Your task to perform on an android device: Add "sony triple a" to the cart on bestbuy.com Image 0: 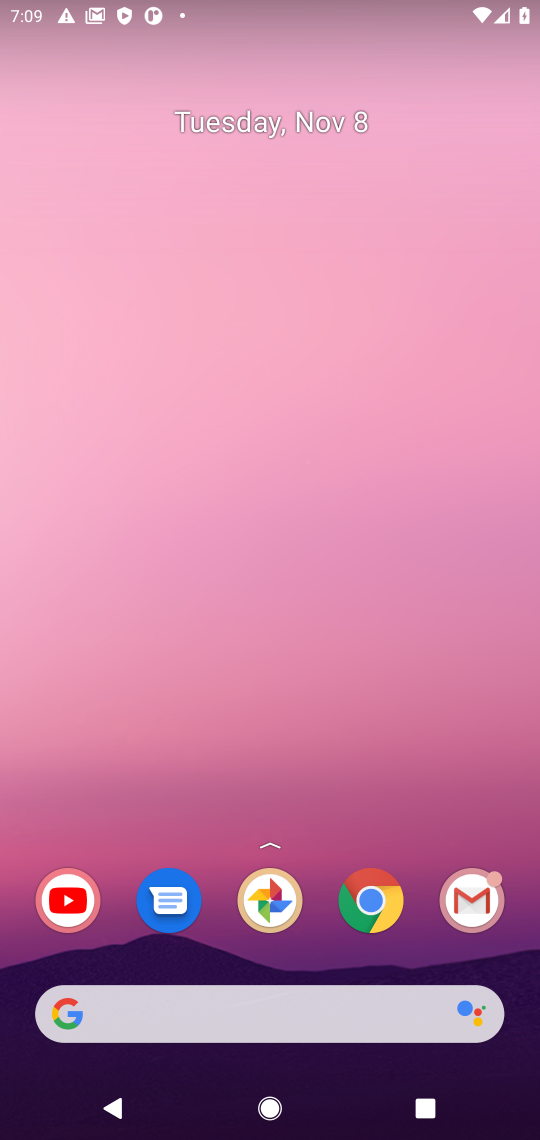
Step 0: click (383, 910)
Your task to perform on an android device: Add "sony triple a" to the cart on bestbuy.com Image 1: 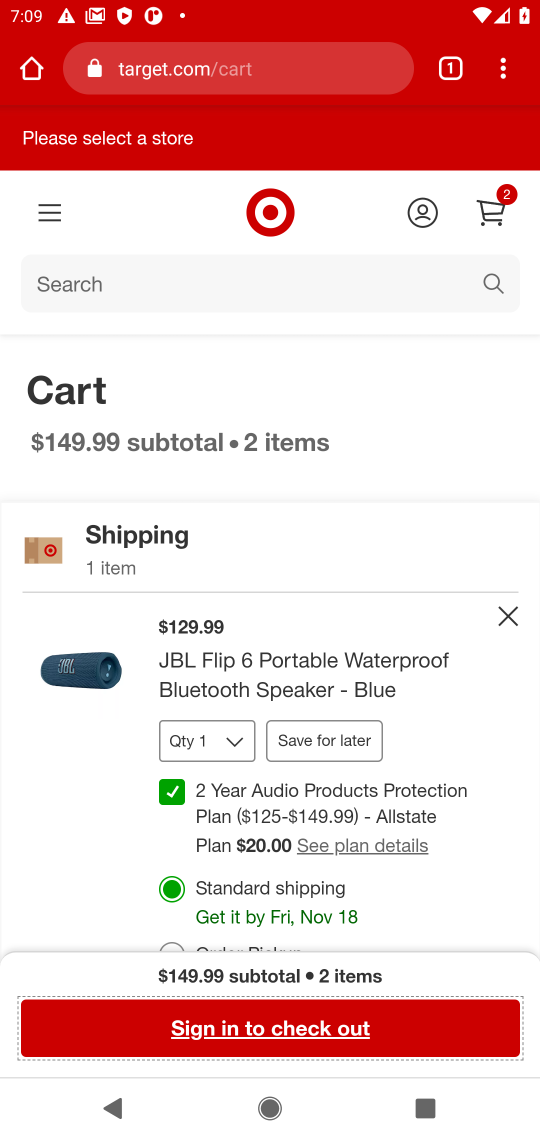
Step 1: click (180, 77)
Your task to perform on an android device: Add "sony triple a" to the cart on bestbuy.com Image 2: 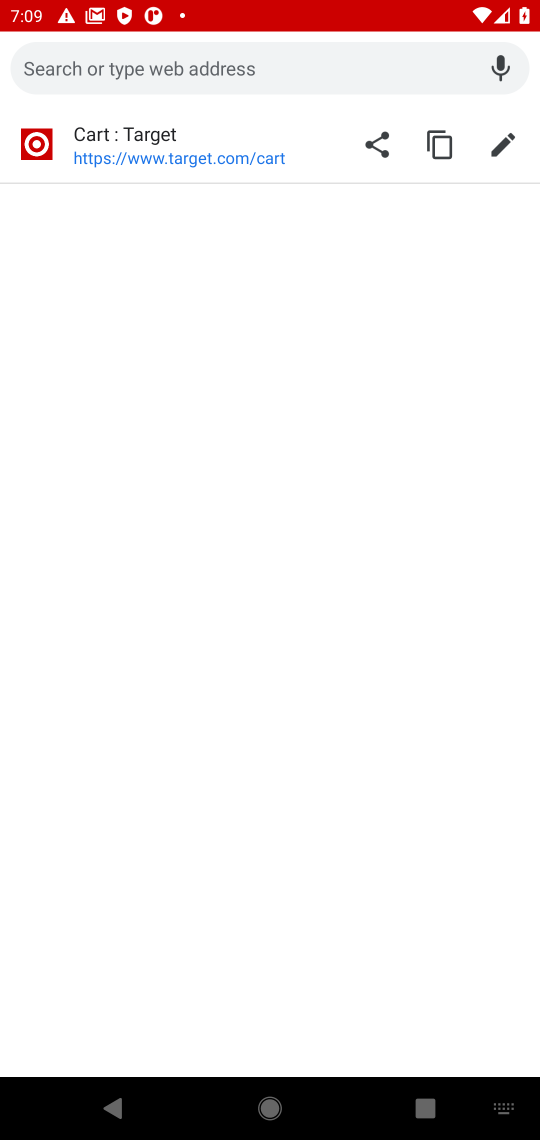
Step 2: type "bestbuy"
Your task to perform on an android device: Add "sony triple a" to the cart on bestbuy.com Image 3: 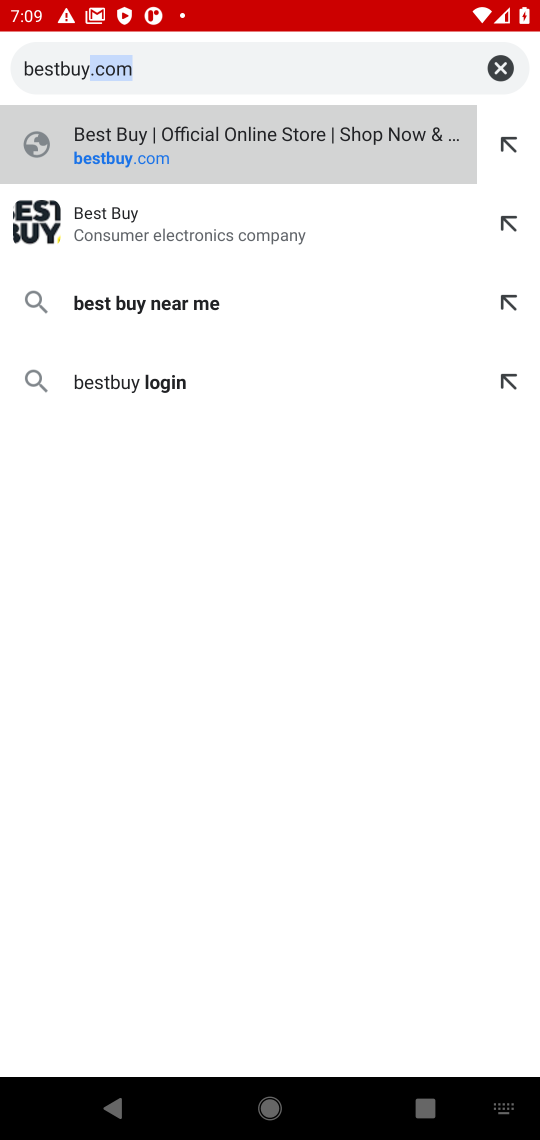
Step 3: type ""
Your task to perform on an android device: Add "sony triple a" to the cart on bestbuy.com Image 4: 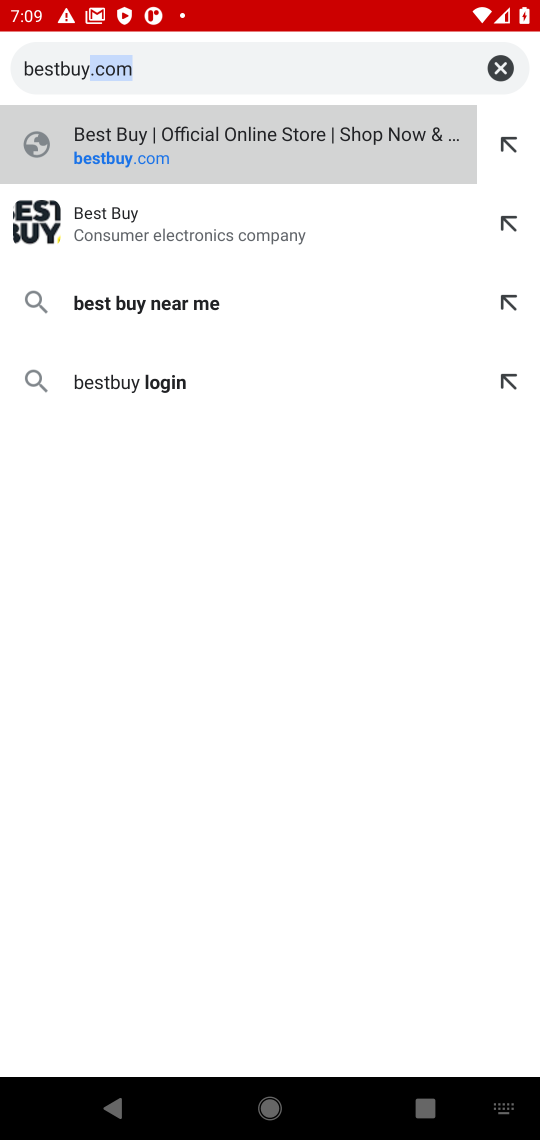
Step 4: click (103, 223)
Your task to perform on an android device: Add "sony triple a" to the cart on bestbuy.com Image 5: 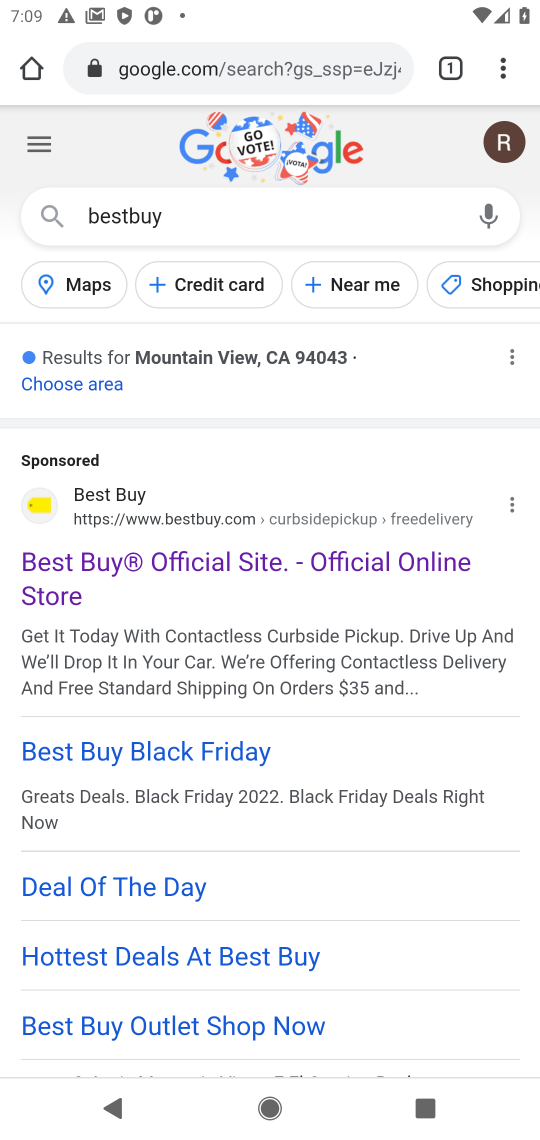
Step 5: drag from (251, 981) to (211, 308)
Your task to perform on an android device: Add "sony triple a" to the cart on bestbuy.com Image 6: 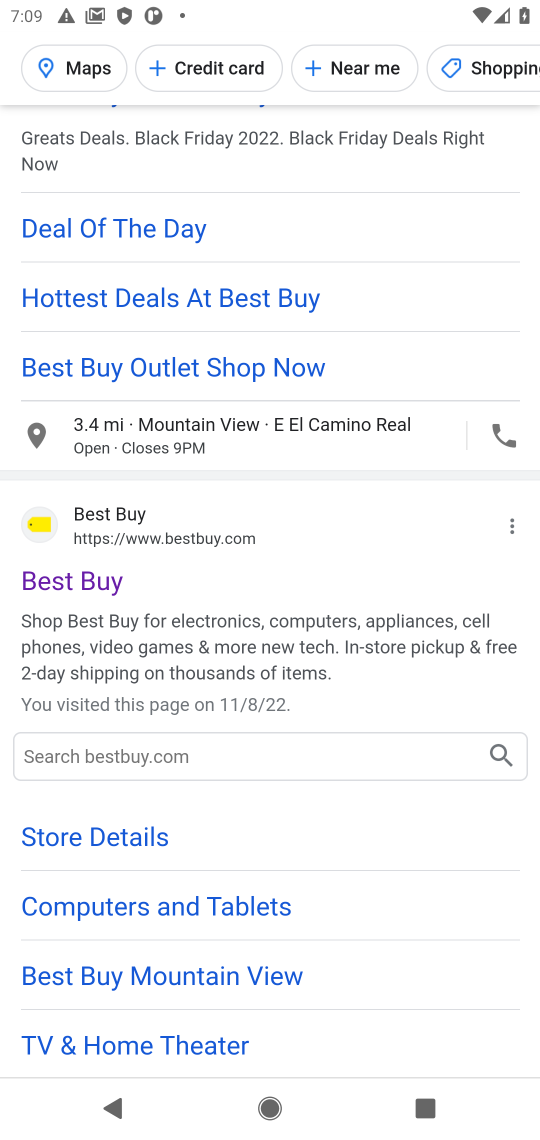
Step 6: click (97, 577)
Your task to perform on an android device: Add "sony triple a" to the cart on bestbuy.com Image 7: 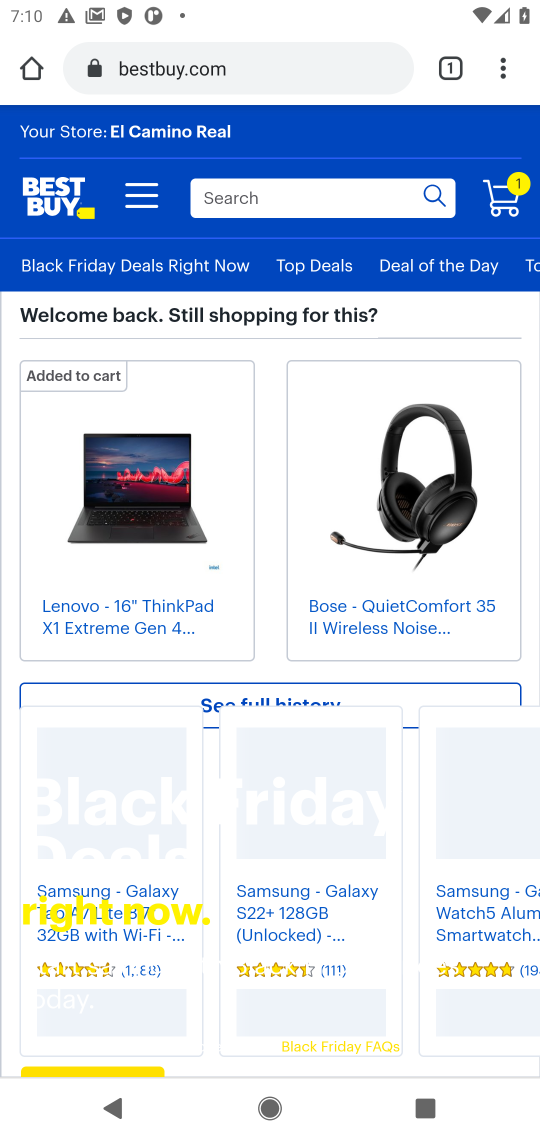
Step 7: click (256, 198)
Your task to perform on an android device: Add "sony triple a" to the cart on bestbuy.com Image 8: 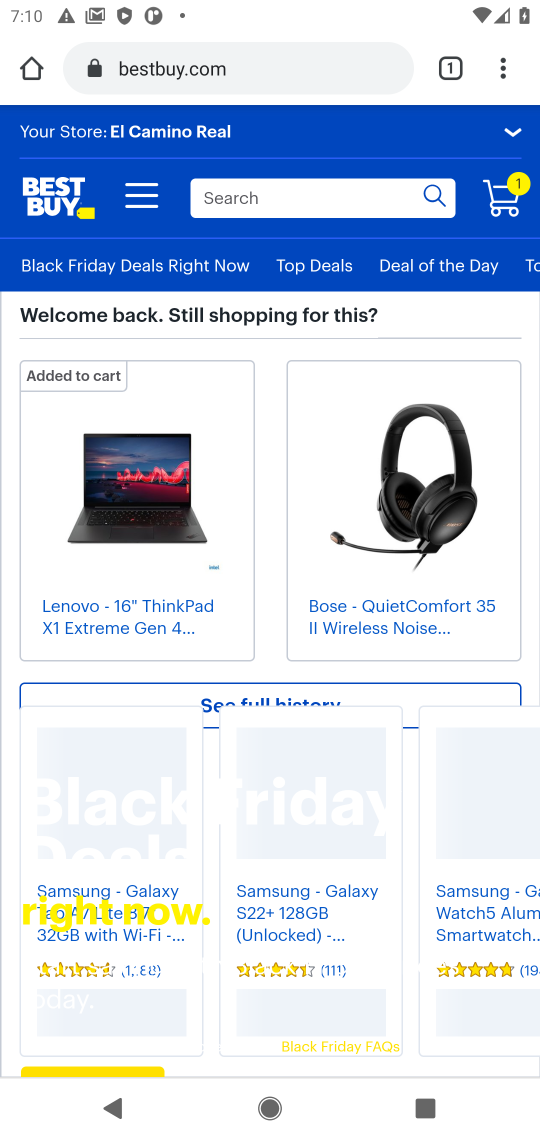
Step 8: type "sony triple "
Your task to perform on an android device: Add "sony triple a" to the cart on bestbuy.com Image 9: 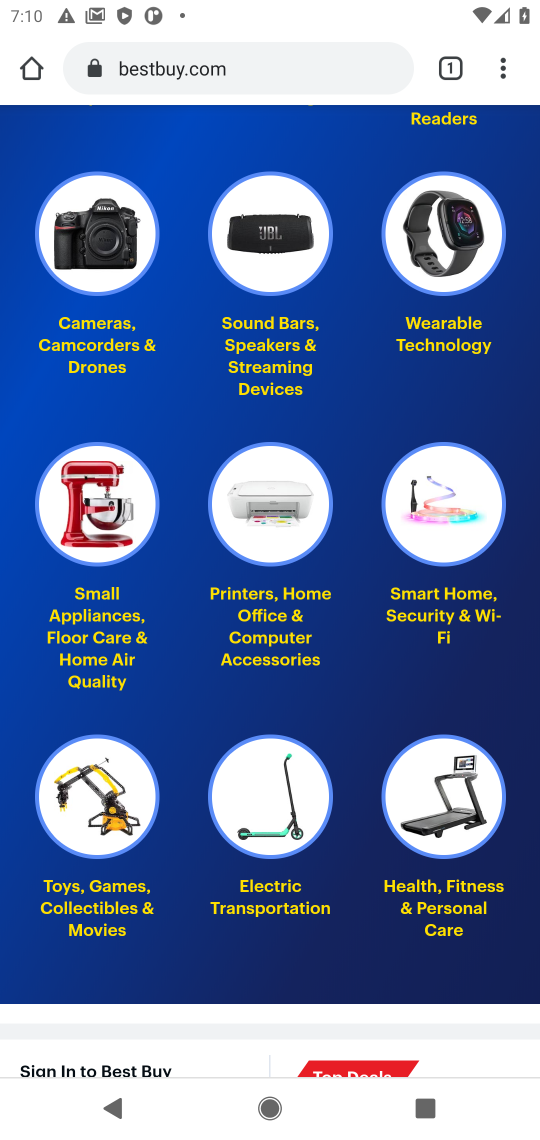
Step 9: drag from (186, 947) to (216, 459)
Your task to perform on an android device: Add "sony triple a" to the cart on bestbuy.com Image 10: 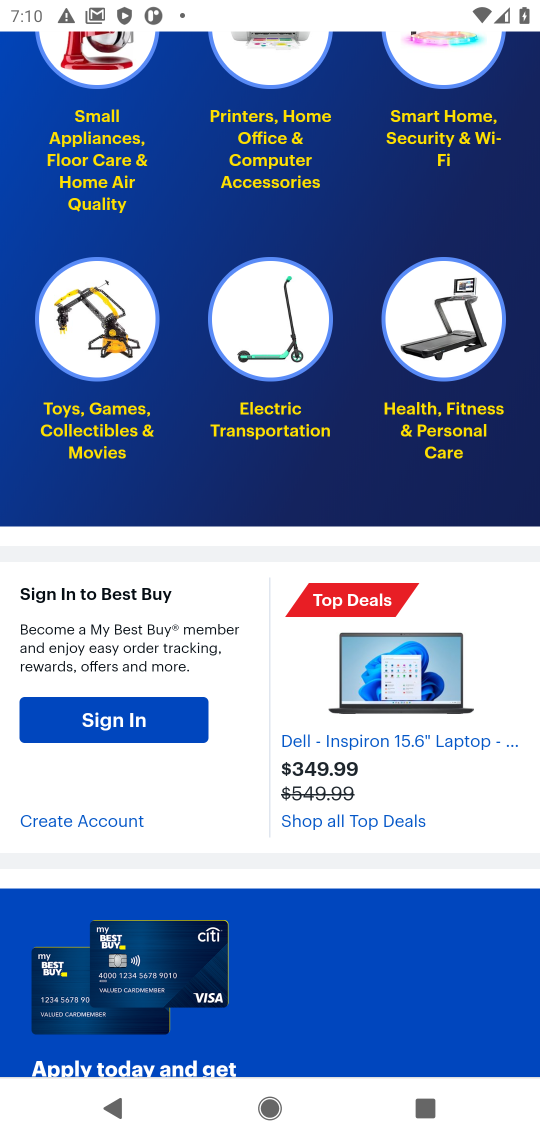
Step 10: drag from (253, 318) to (260, 963)
Your task to perform on an android device: Add "sony triple a" to the cart on bestbuy.com Image 11: 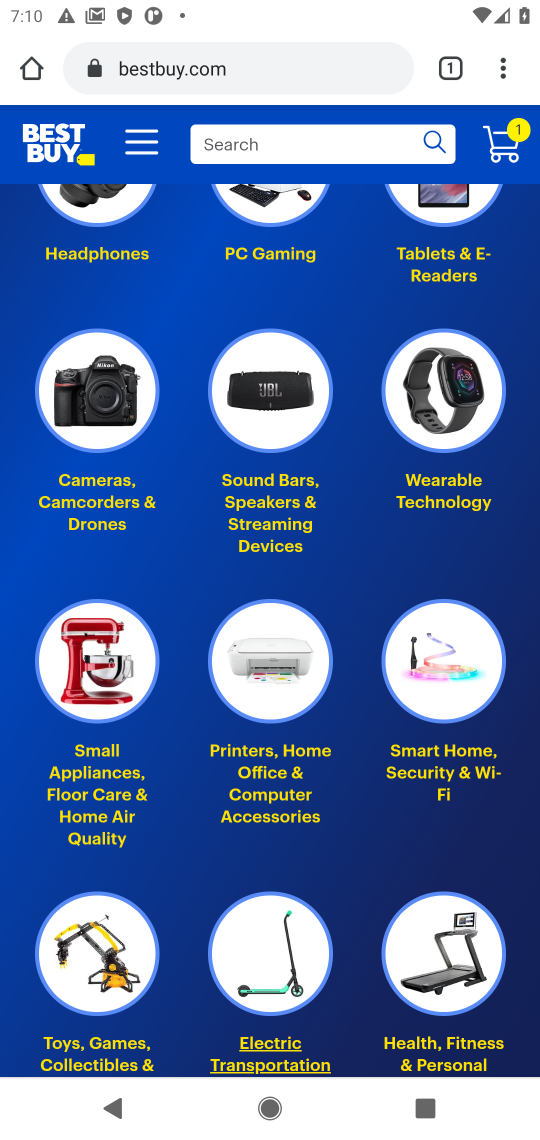
Step 11: click (235, 151)
Your task to perform on an android device: Add "sony triple a" to the cart on bestbuy.com Image 12: 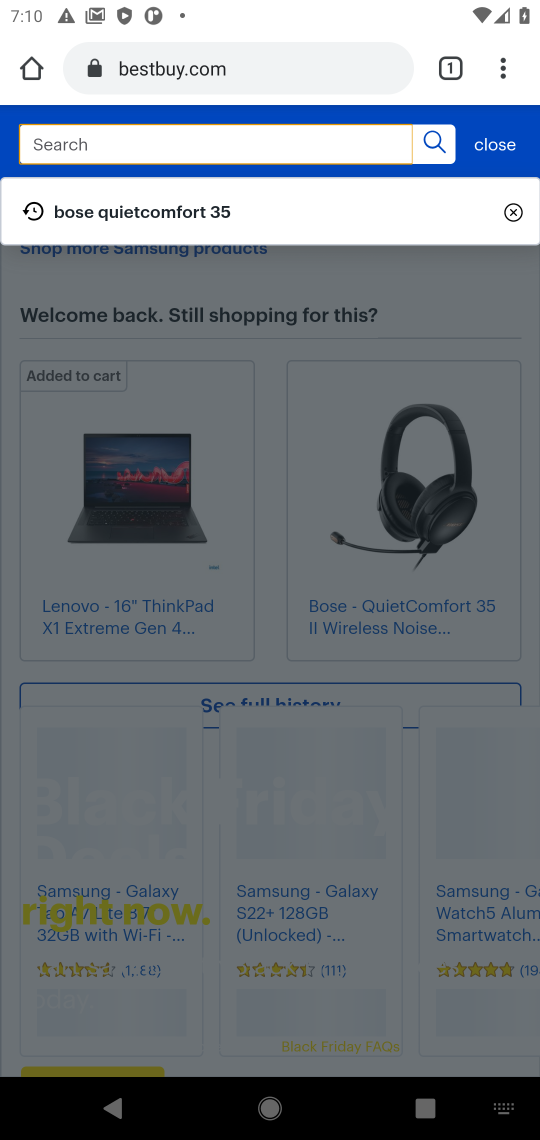
Step 12: type "sony triple"
Your task to perform on an android device: Add "sony triple a" to the cart on bestbuy.com Image 13: 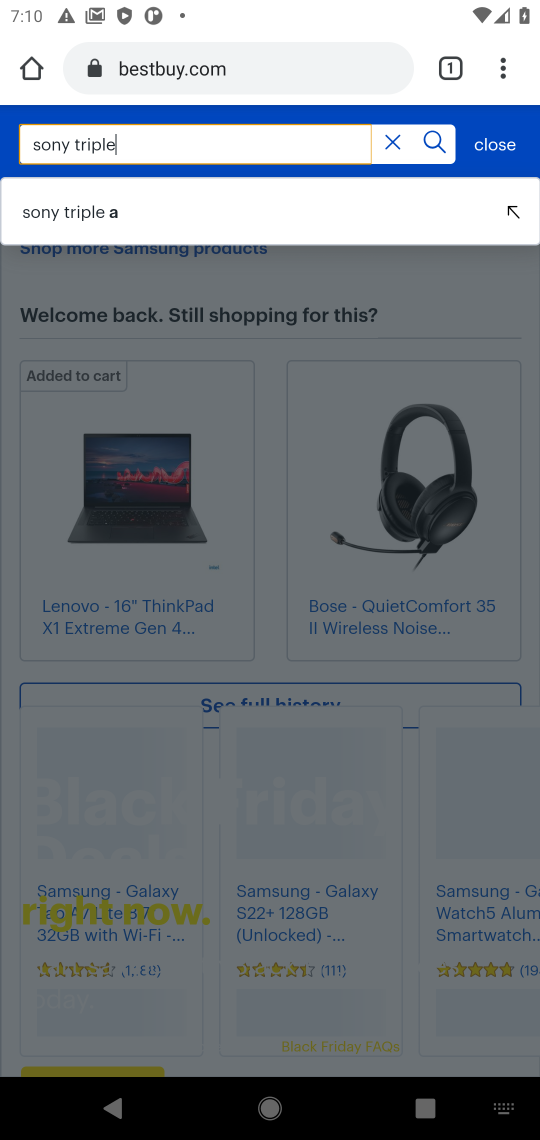
Step 13: click (77, 207)
Your task to perform on an android device: Add "sony triple a" to the cart on bestbuy.com Image 14: 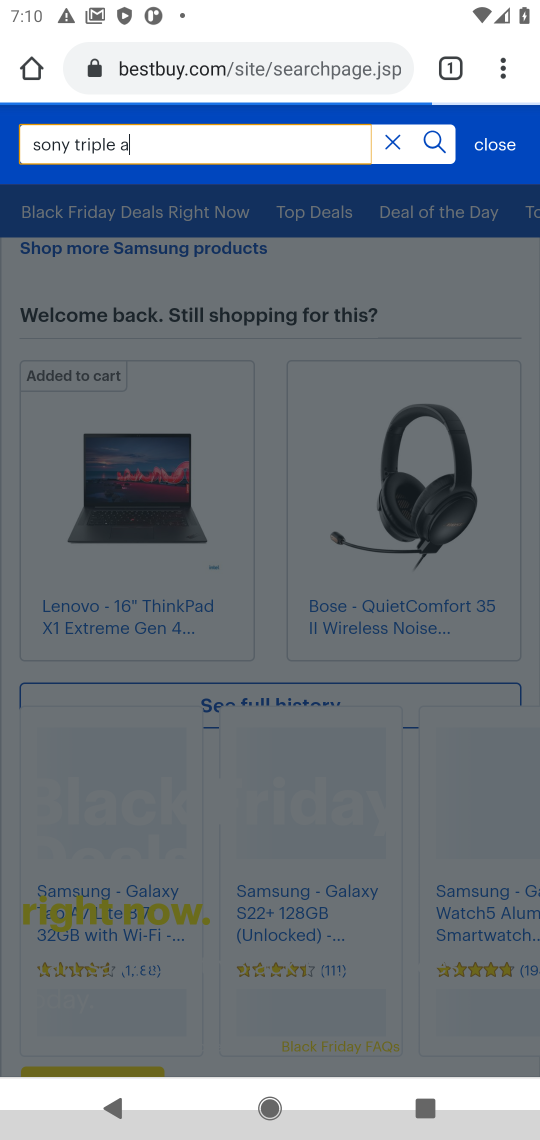
Step 14: click (389, 132)
Your task to perform on an android device: Add "sony triple a" to the cart on bestbuy.com Image 15: 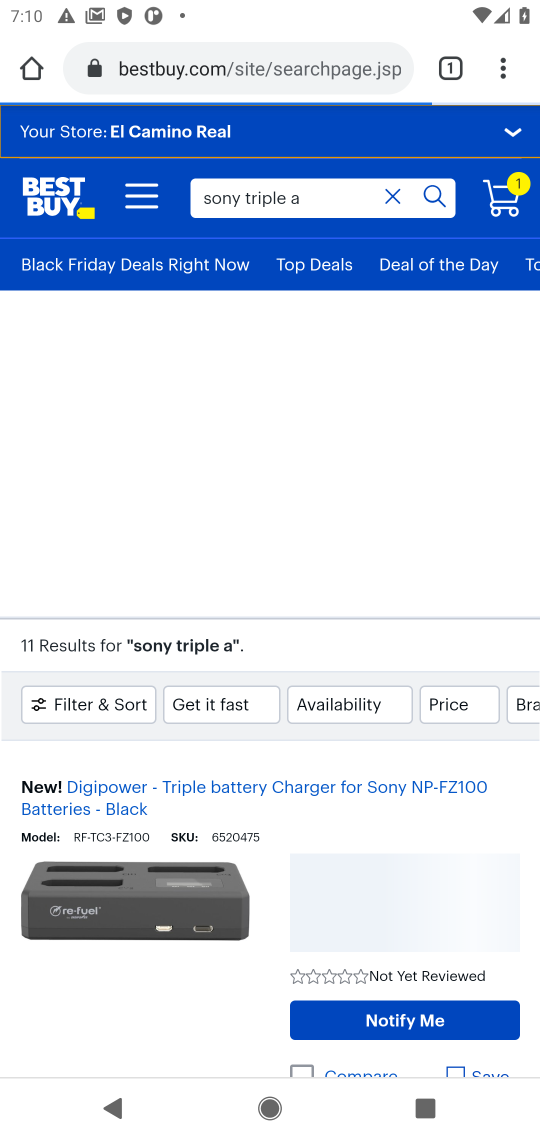
Step 15: click (348, 208)
Your task to perform on an android device: Add "sony triple a" to the cart on bestbuy.com Image 16: 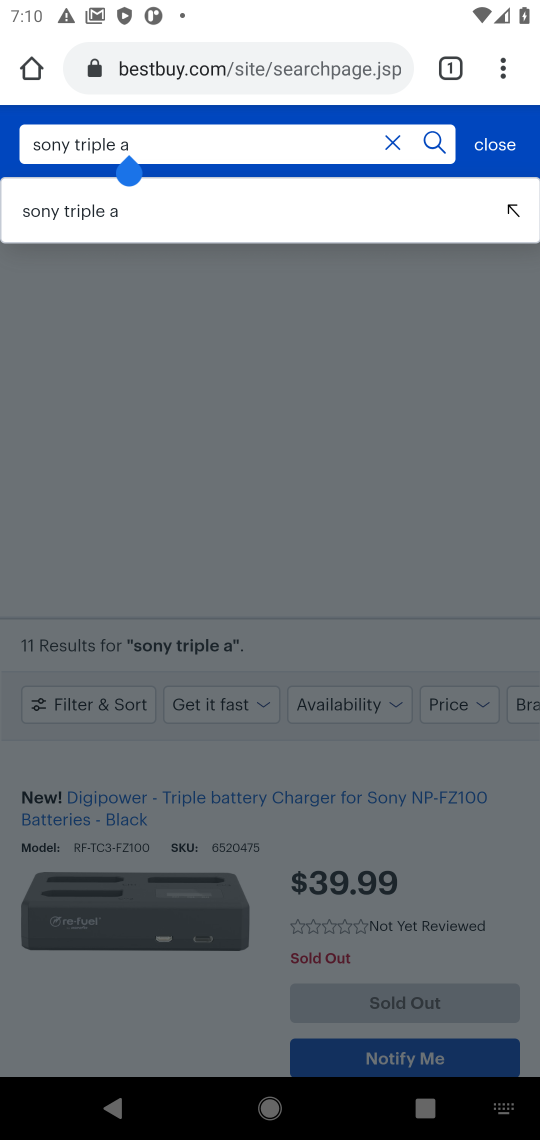
Step 16: click (439, 140)
Your task to perform on an android device: Add "sony triple a" to the cart on bestbuy.com Image 17: 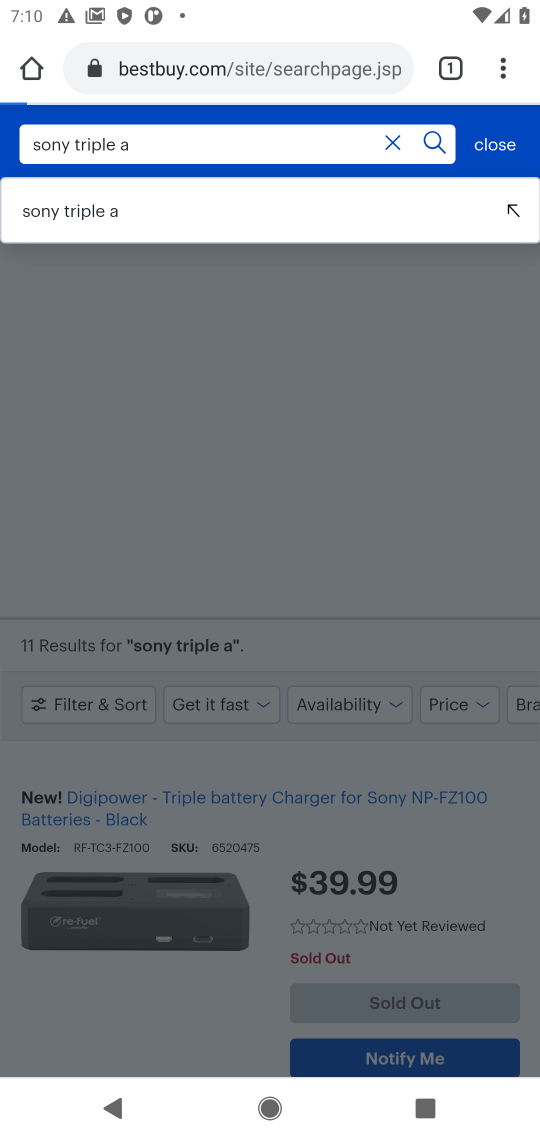
Step 17: click (98, 143)
Your task to perform on an android device: Add "sony triple a" to the cart on bestbuy.com Image 18: 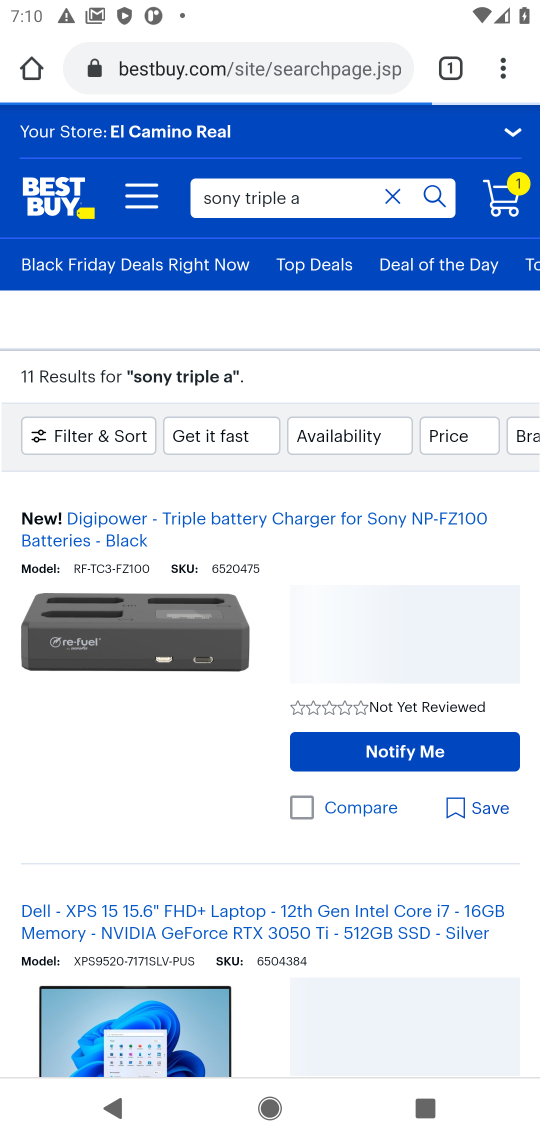
Step 18: click (298, 1016)
Your task to perform on an android device: Add "sony triple a" to the cart on bestbuy.com Image 19: 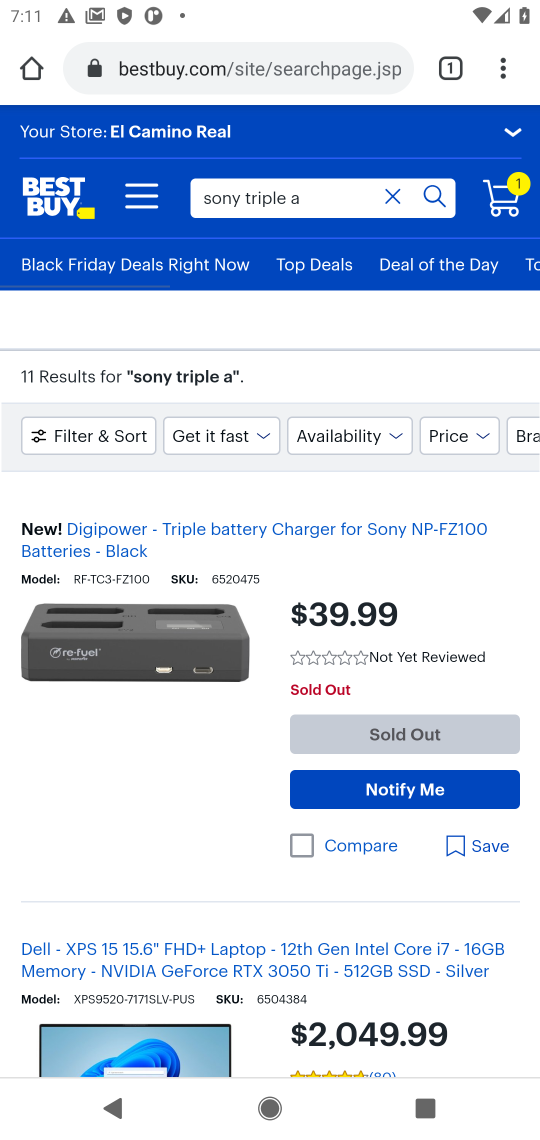
Step 19: drag from (230, 402) to (262, 886)
Your task to perform on an android device: Add "sony triple a" to the cart on bestbuy.com Image 20: 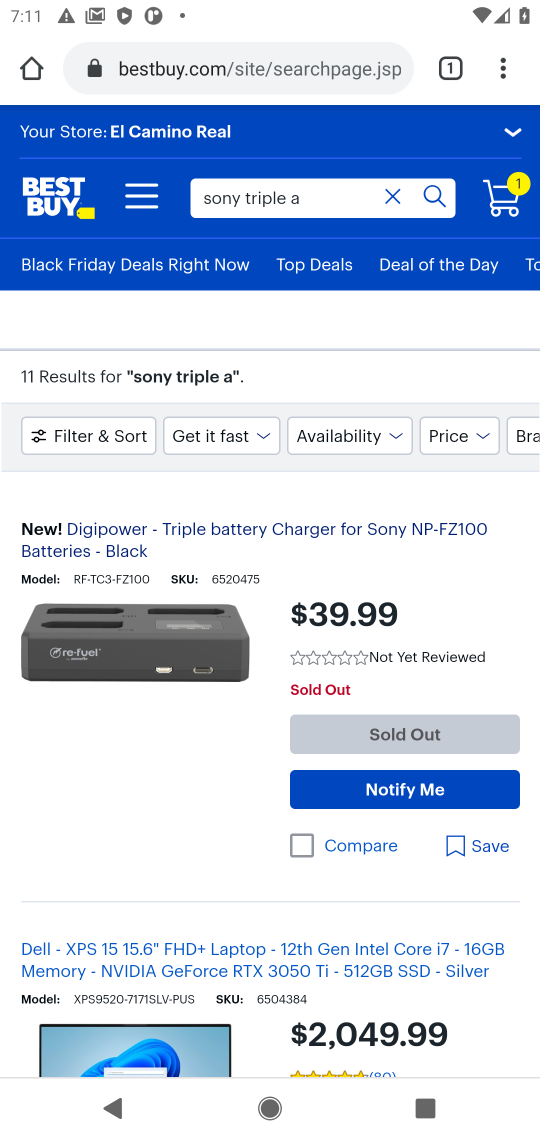
Step 20: click (392, 198)
Your task to perform on an android device: Add "sony triple a" to the cart on bestbuy.com Image 21: 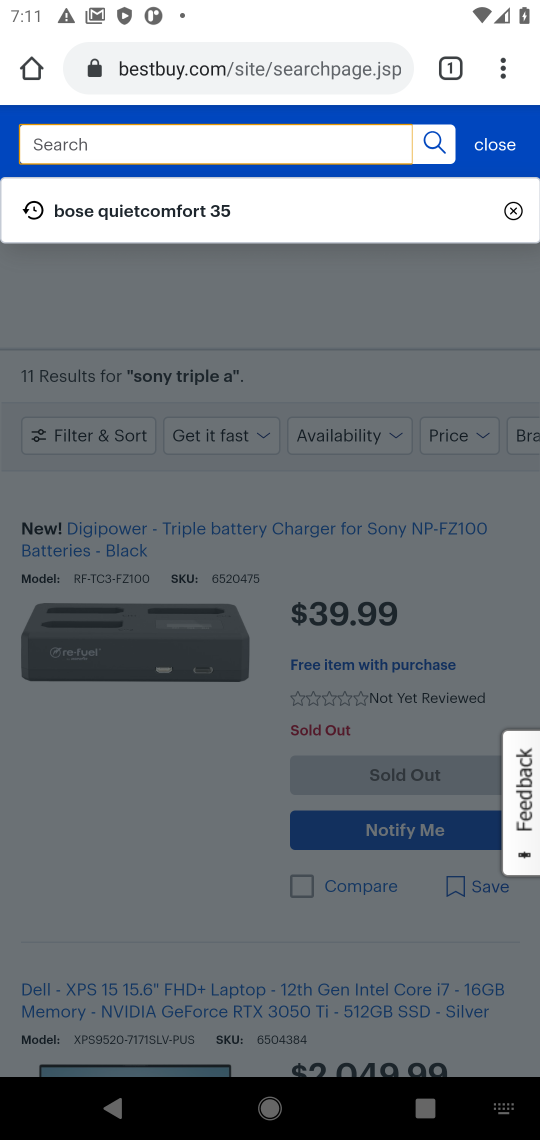
Step 21: type "sony triple"
Your task to perform on an android device: Add "sony triple a" to the cart on bestbuy.com Image 22: 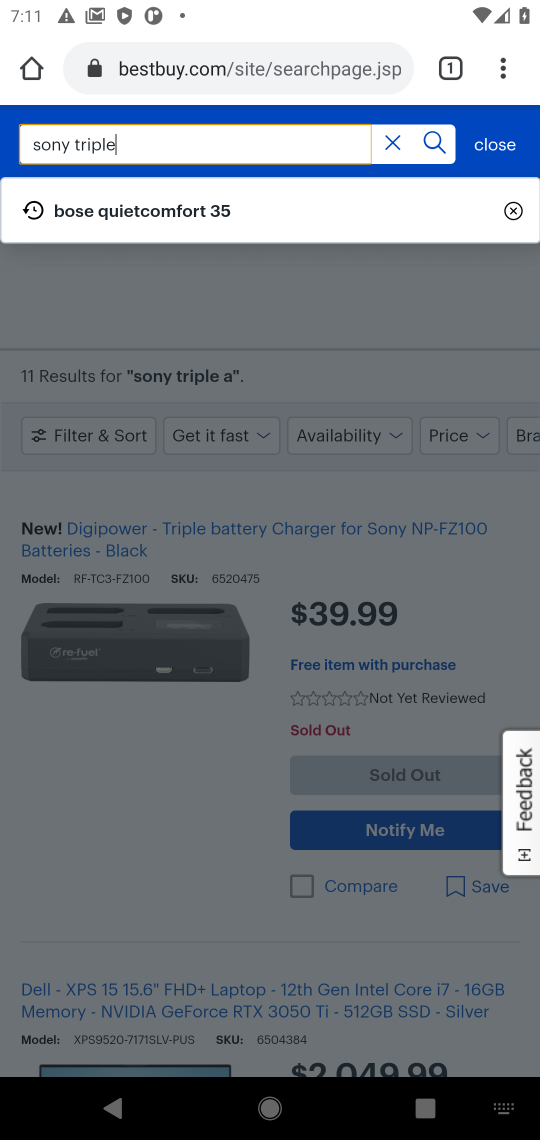
Step 22: type ""
Your task to perform on an android device: Add "sony triple a" to the cart on bestbuy.com Image 23: 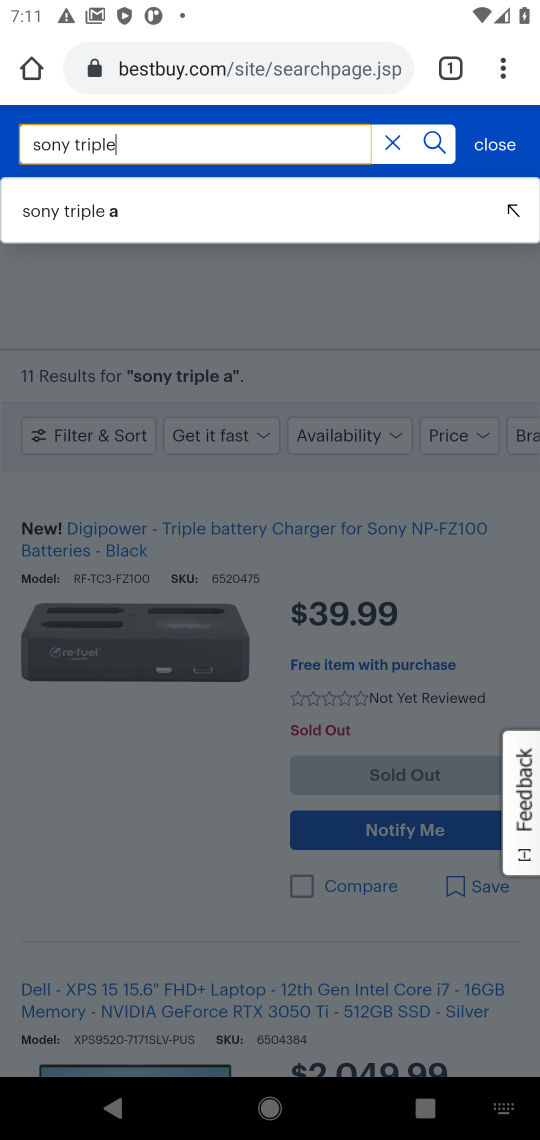
Step 23: click (427, 140)
Your task to perform on an android device: Add "sony triple a" to the cart on bestbuy.com Image 24: 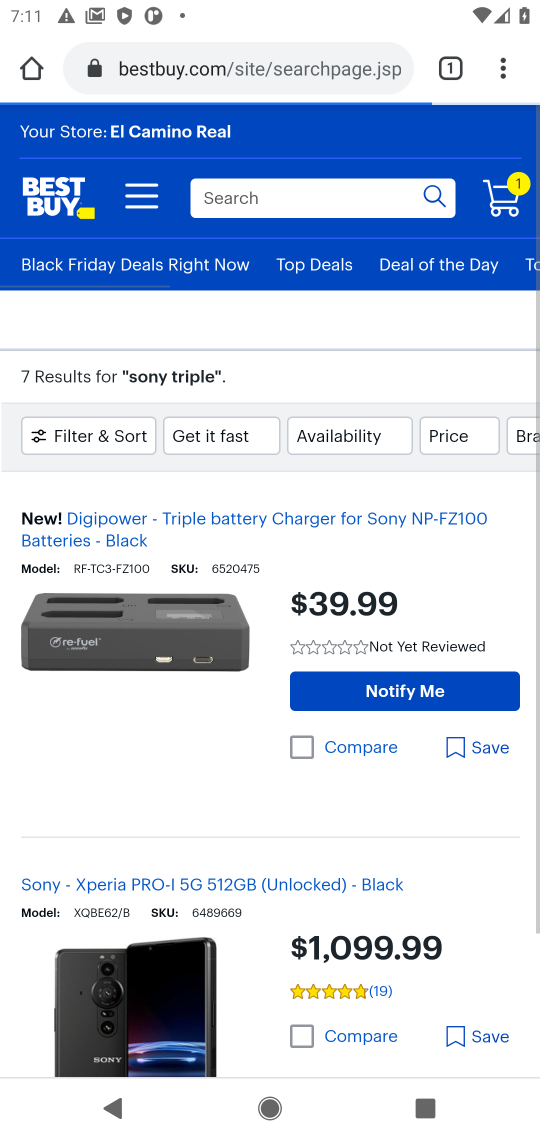
Step 24: drag from (234, 813) to (209, 451)
Your task to perform on an android device: Add "sony triple a" to the cart on bestbuy.com Image 25: 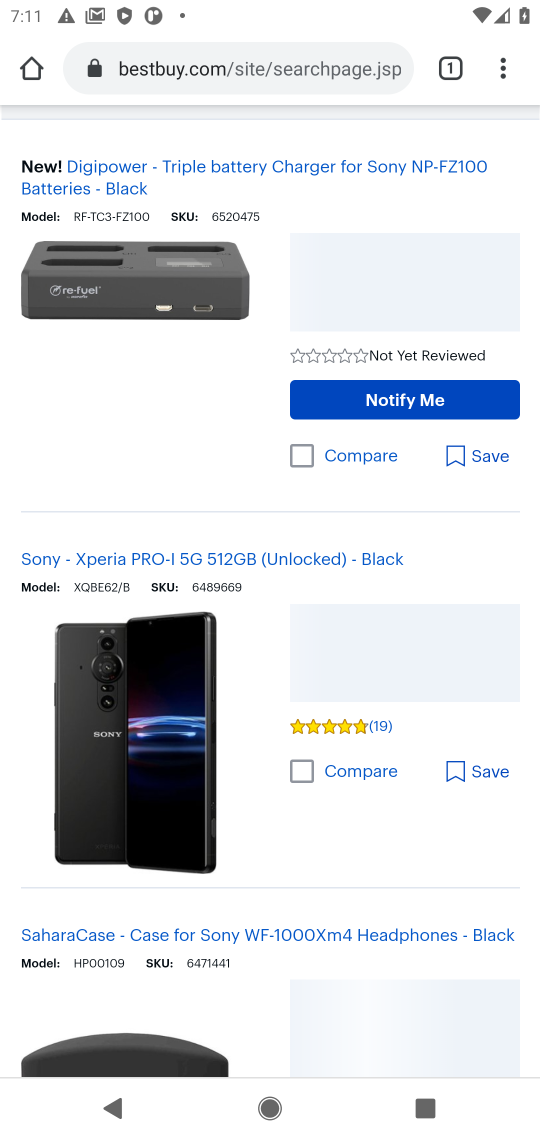
Step 25: click (117, 257)
Your task to perform on an android device: Add "sony triple a" to the cart on bestbuy.com Image 26: 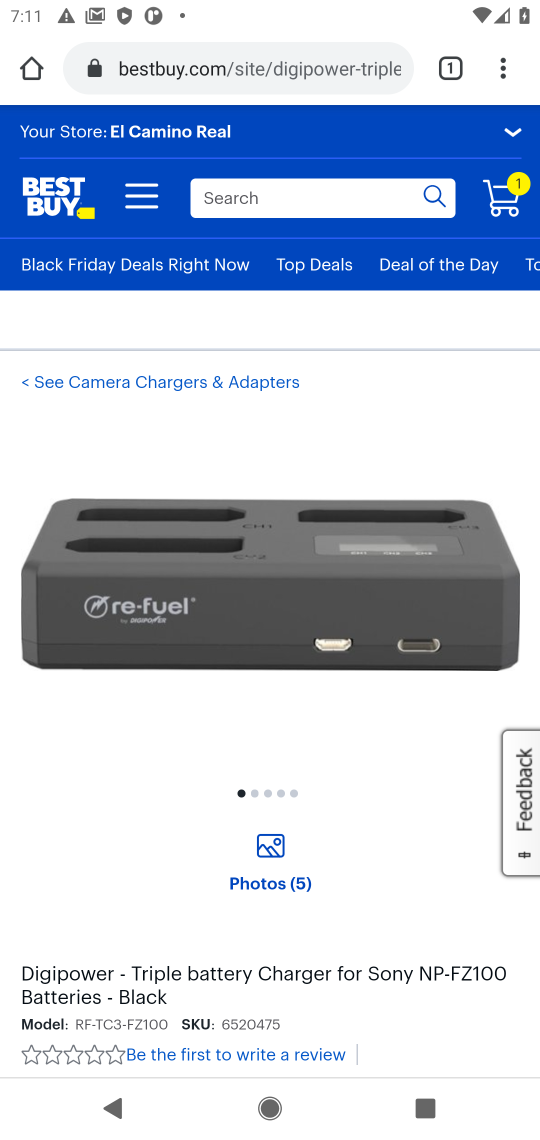
Step 26: drag from (329, 740) to (354, 388)
Your task to perform on an android device: Add "sony triple a" to the cart on bestbuy.com Image 27: 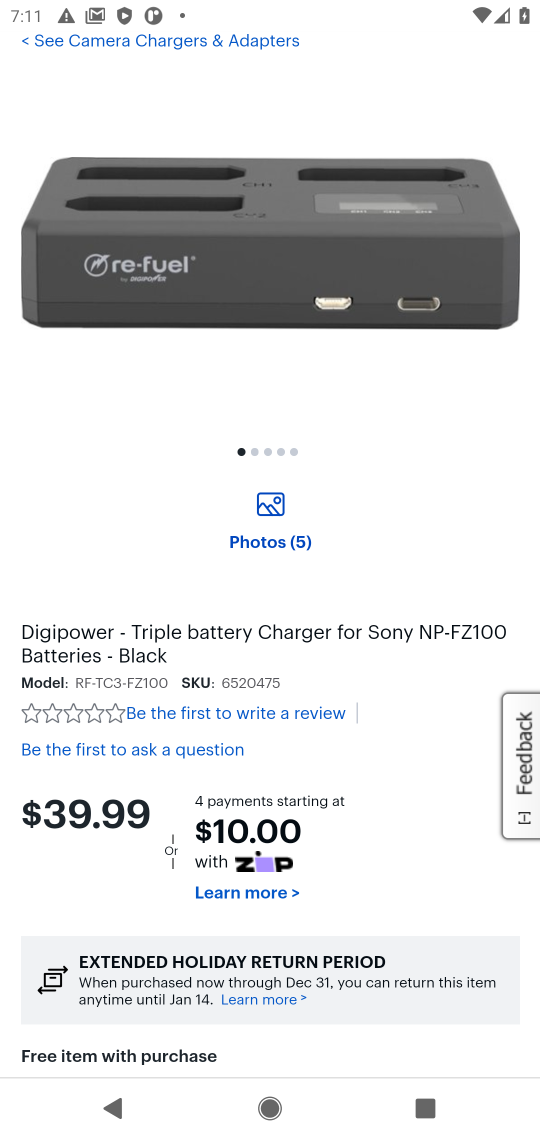
Step 27: drag from (385, 850) to (359, 346)
Your task to perform on an android device: Add "sony triple a" to the cart on bestbuy.com Image 28: 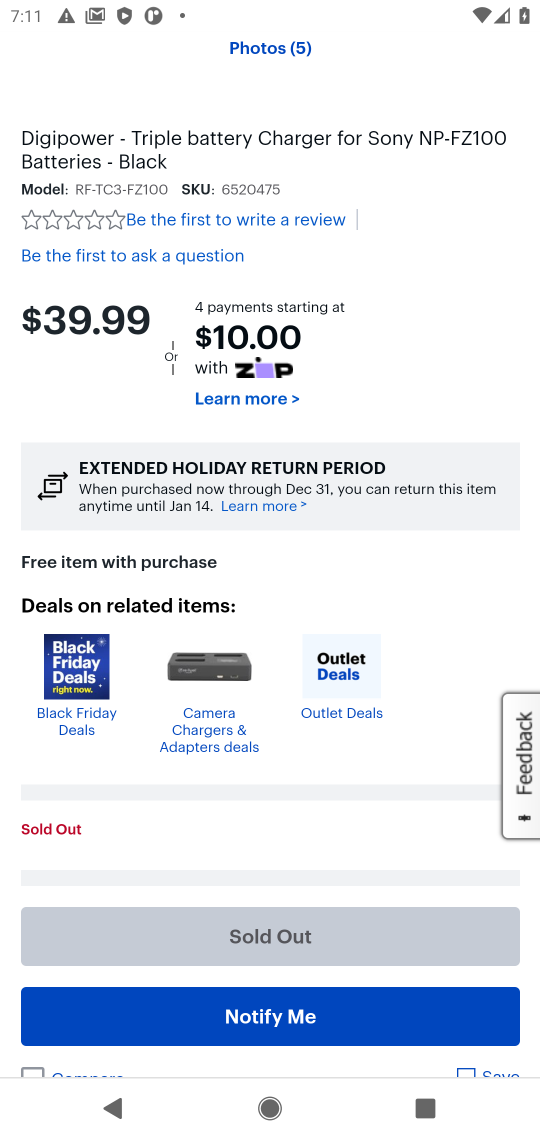
Step 28: drag from (398, 873) to (373, 563)
Your task to perform on an android device: Add "sony triple a" to the cart on bestbuy.com Image 29: 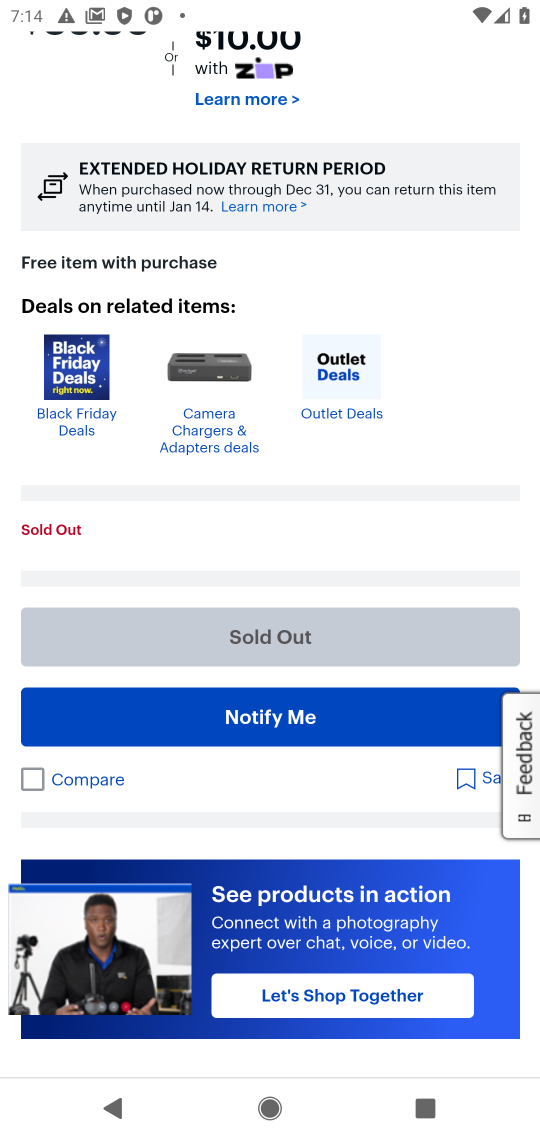
Step 29: click (296, 717)
Your task to perform on an android device: Add "sony triple a" to the cart on bestbuy.com Image 30: 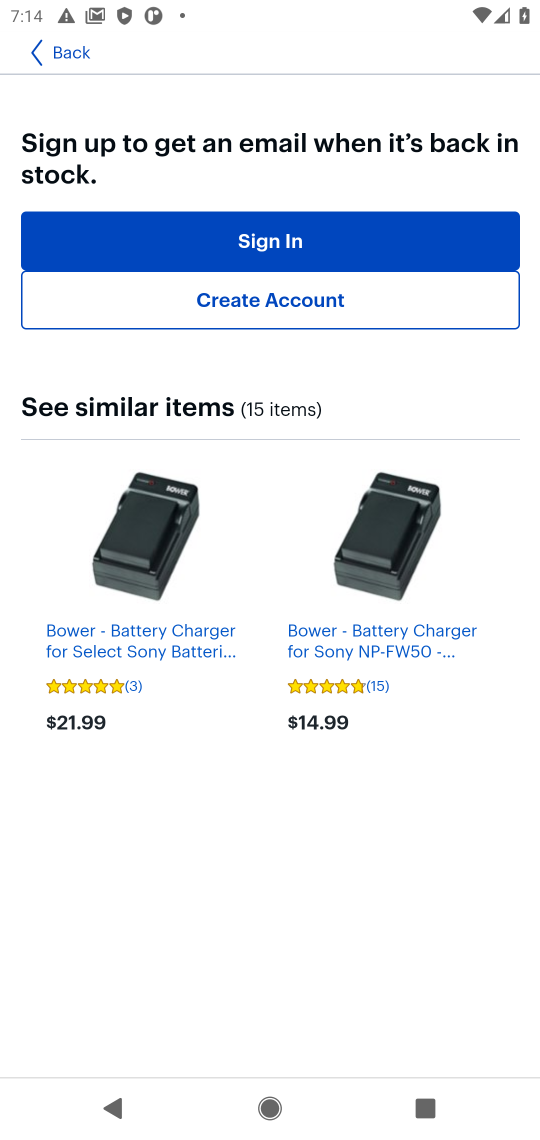
Step 30: press back button
Your task to perform on an android device: Add "sony triple a" to the cart on bestbuy.com Image 31: 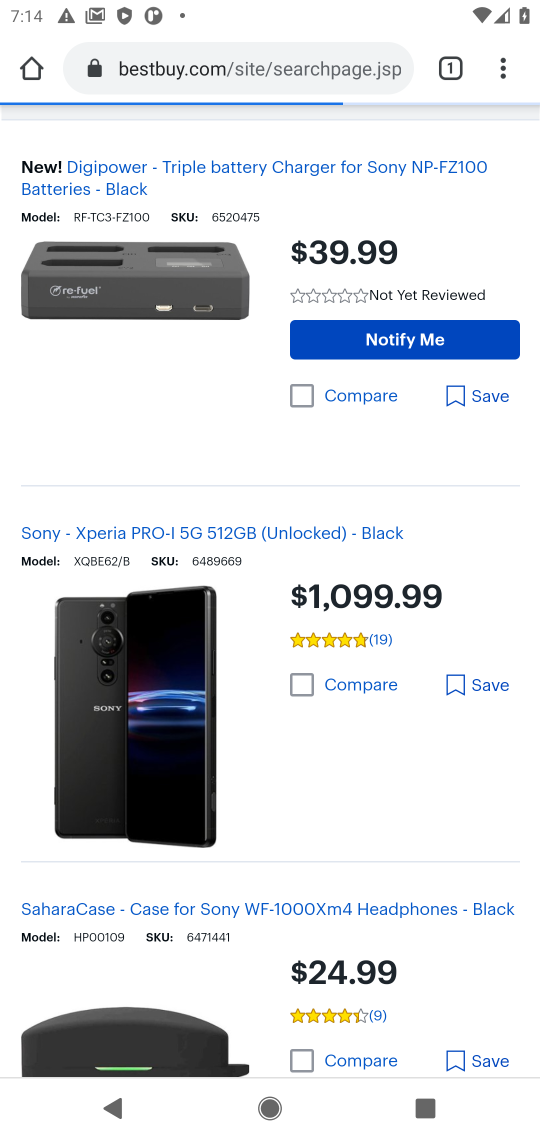
Step 31: click (166, 692)
Your task to perform on an android device: Add "sony triple a" to the cart on bestbuy.com Image 32: 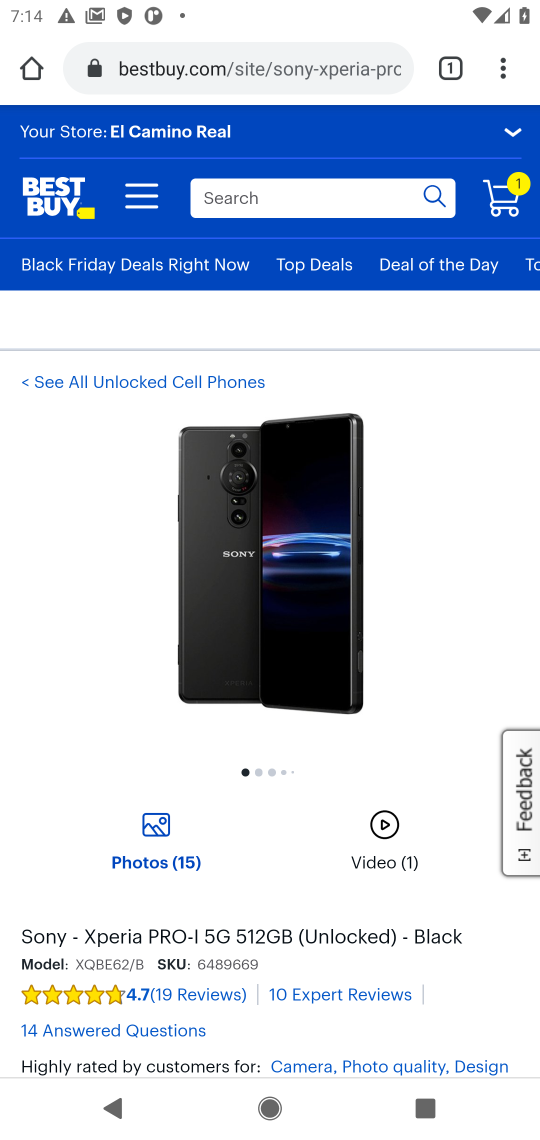
Step 32: drag from (254, 884) to (254, 391)
Your task to perform on an android device: Add "sony triple a" to the cart on bestbuy.com Image 33: 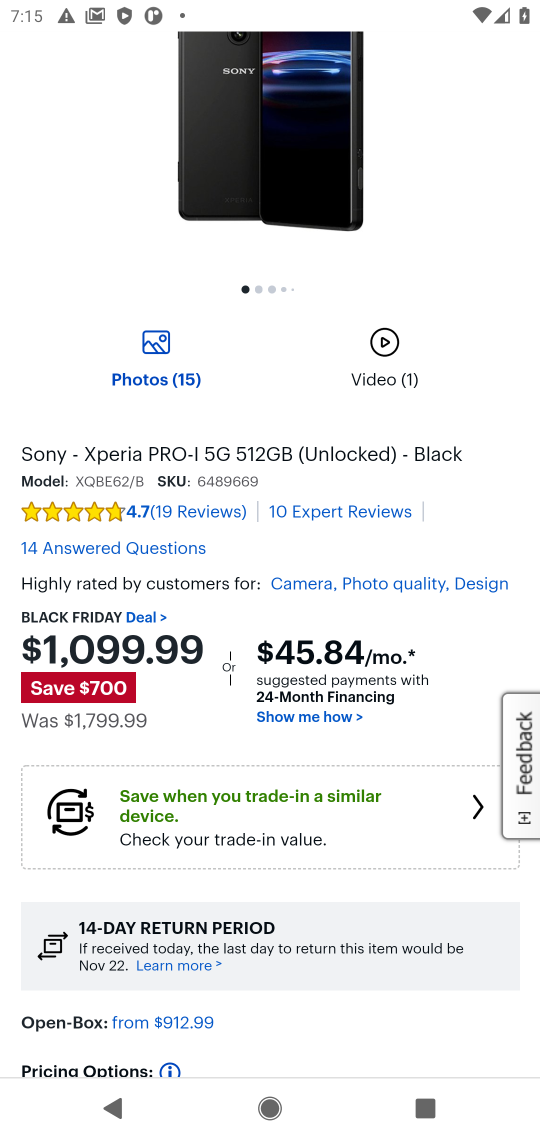
Step 33: drag from (271, 744) to (174, 103)
Your task to perform on an android device: Add "sony triple a" to the cart on bestbuy.com Image 34: 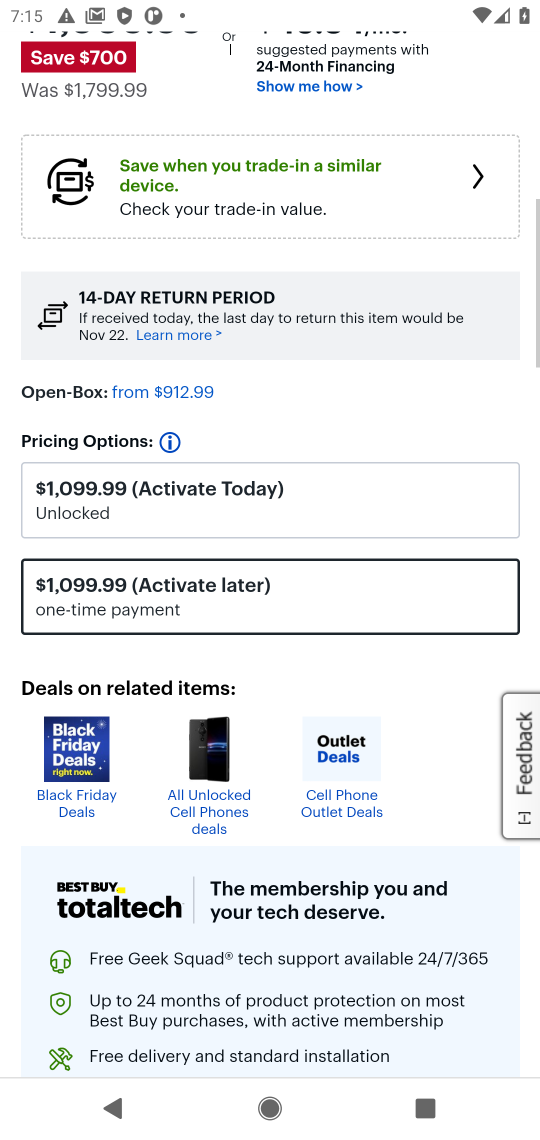
Step 34: drag from (172, 904) to (161, 277)
Your task to perform on an android device: Add "sony triple a" to the cart on bestbuy.com Image 35: 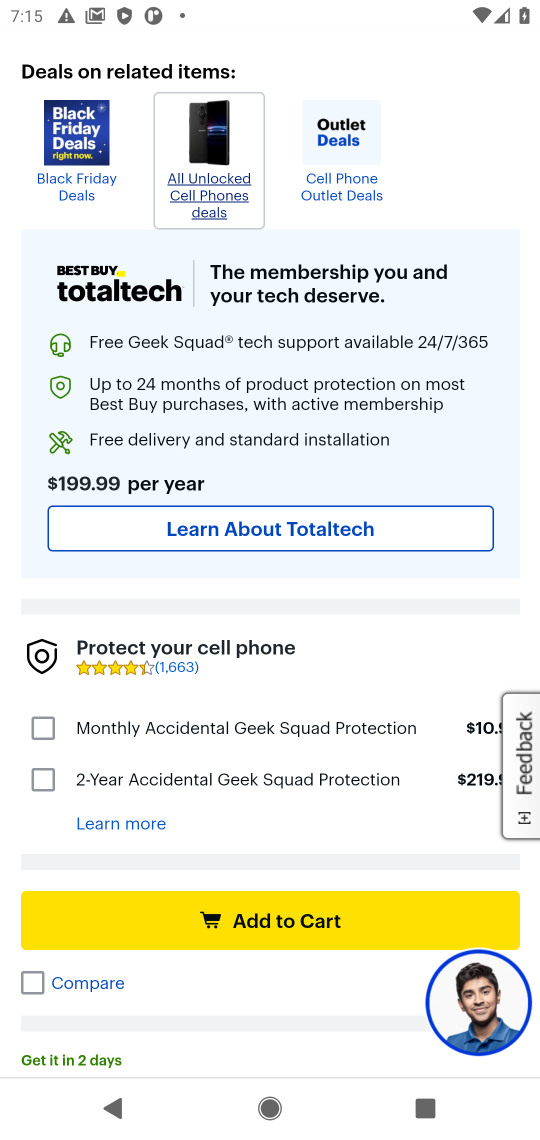
Step 35: click (217, 908)
Your task to perform on an android device: Add "sony triple a" to the cart on bestbuy.com Image 36: 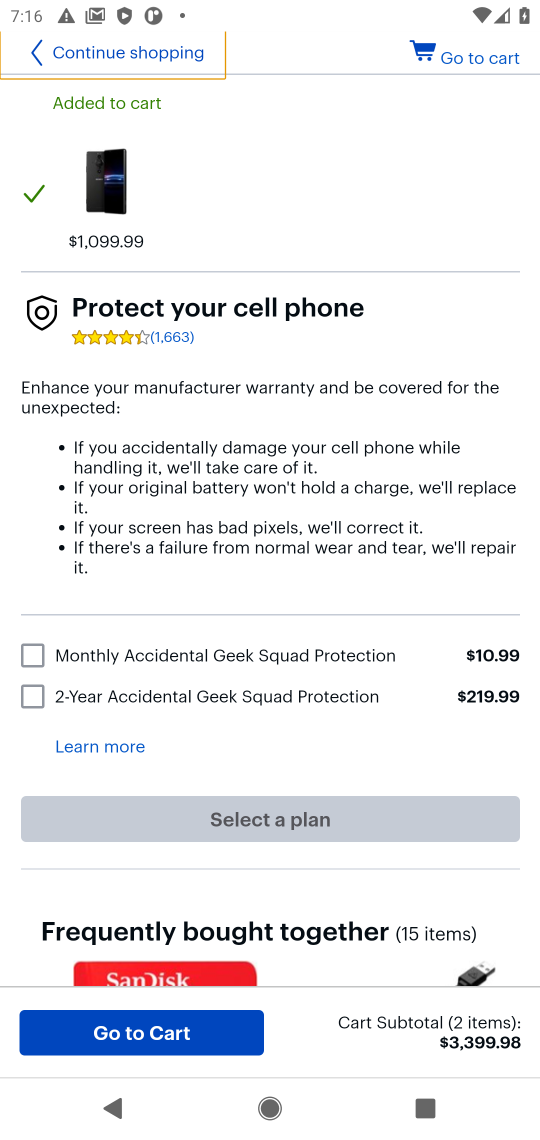
Step 36: click (179, 1032)
Your task to perform on an android device: Add "sony triple a" to the cart on bestbuy.com Image 37: 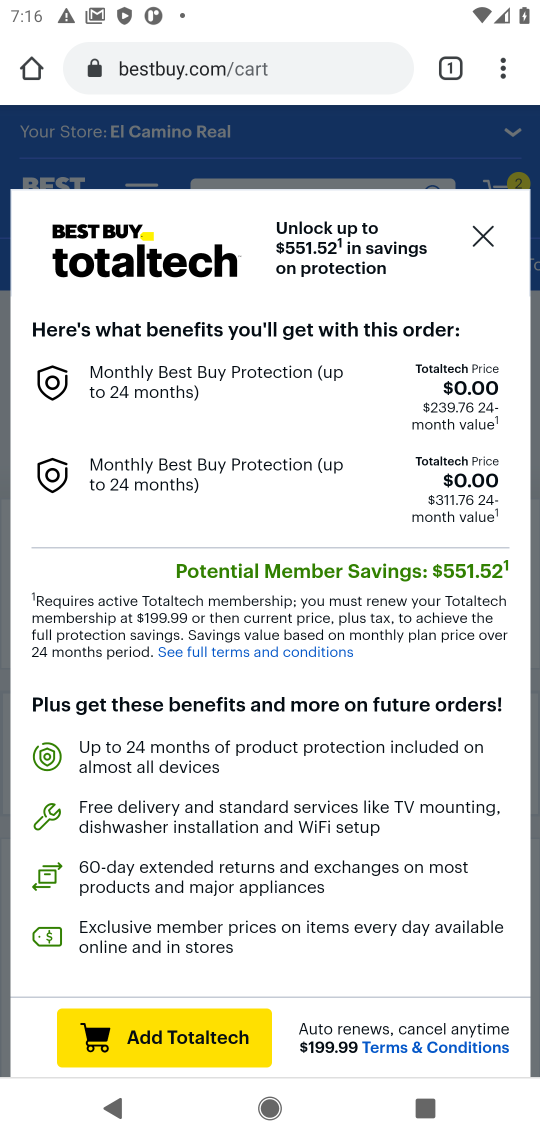
Step 37: click (487, 234)
Your task to perform on an android device: Add "sony triple a" to the cart on bestbuy.com Image 38: 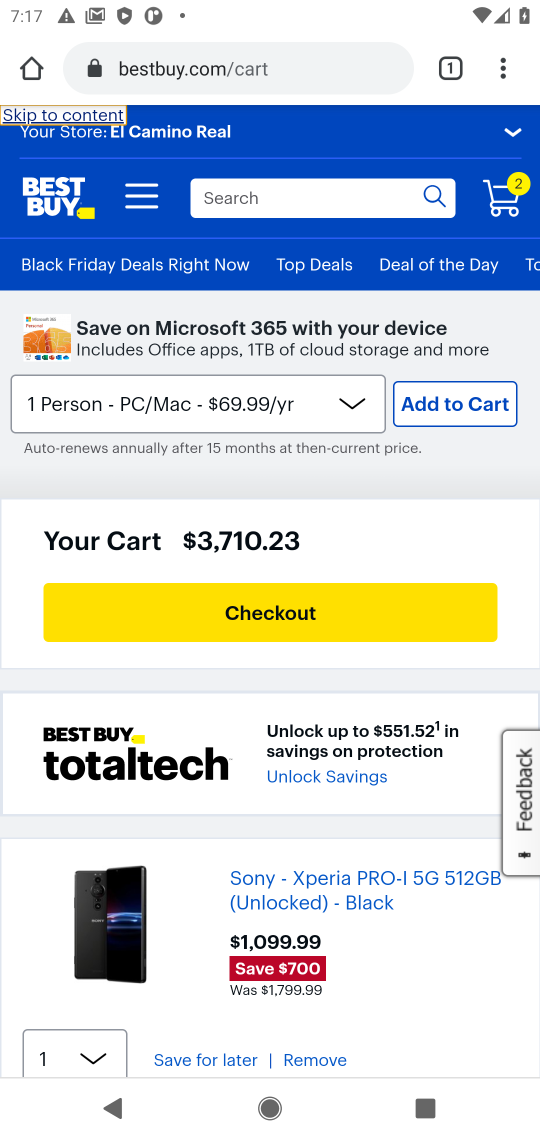
Step 38: task complete